Your task to perform on an android device: turn on location history Image 0: 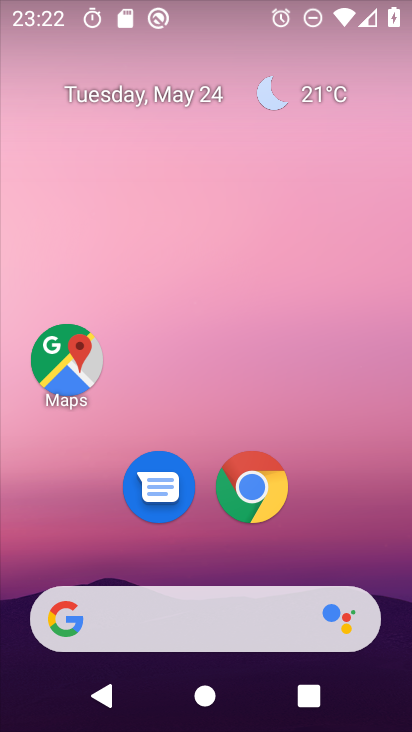
Step 0: click (69, 360)
Your task to perform on an android device: turn on location history Image 1: 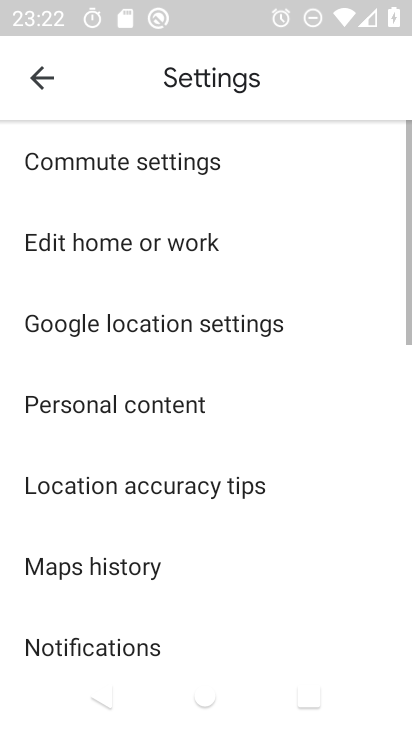
Step 1: click (30, 80)
Your task to perform on an android device: turn on location history Image 2: 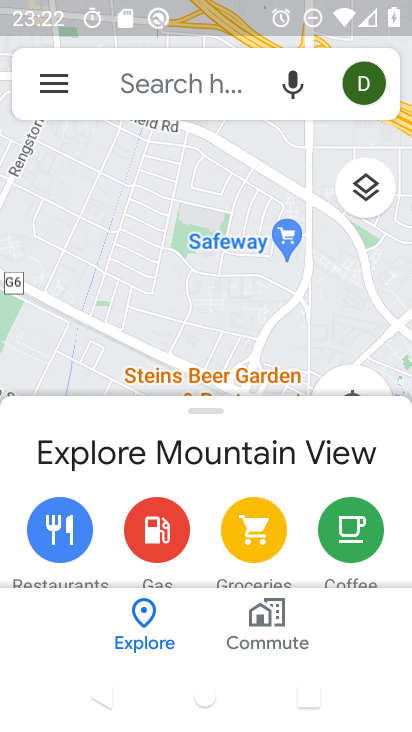
Step 2: click (55, 79)
Your task to perform on an android device: turn on location history Image 3: 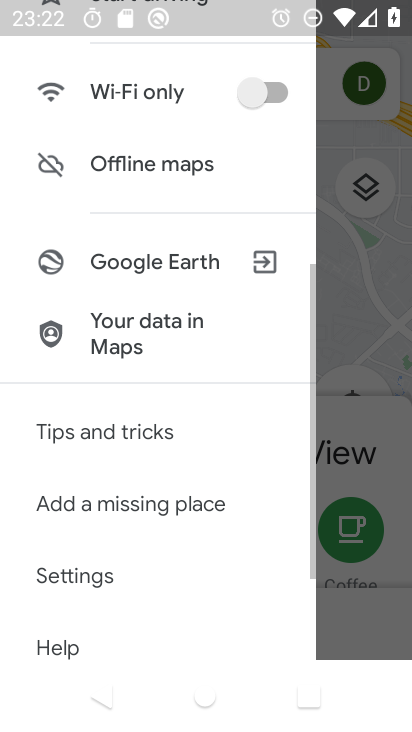
Step 3: drag from (154, 179) to (116, 678)
Your task to perform on an android device: turn on location history Image 4: 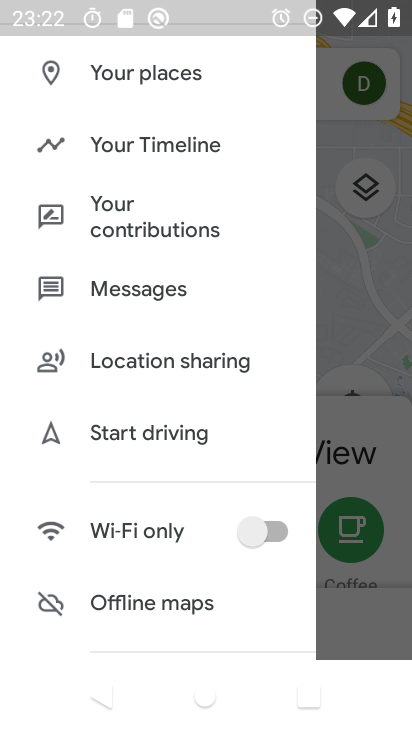
Step 4: click (146, 154)
Your task to perform on an android device: turn on location history Image 5: 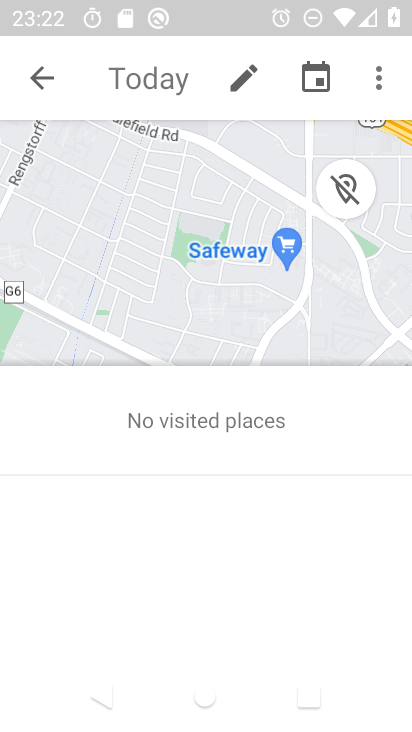
Step 5: click (376, 82)
Your task to perform on an android device: turn on location history Image 6: 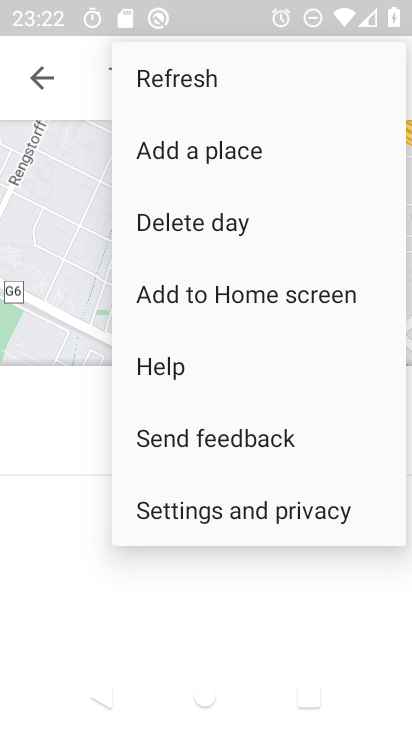
Step 6: click (242, 527)
Your task to perform on an android device: turn on location history Image 7: 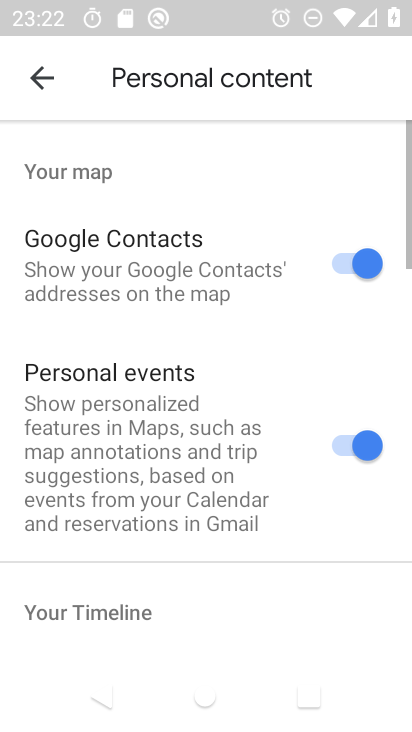
Step 7: drag from (238, 533) to (206, 0)
Your task to perform on an android device: turn on location history Image 8: 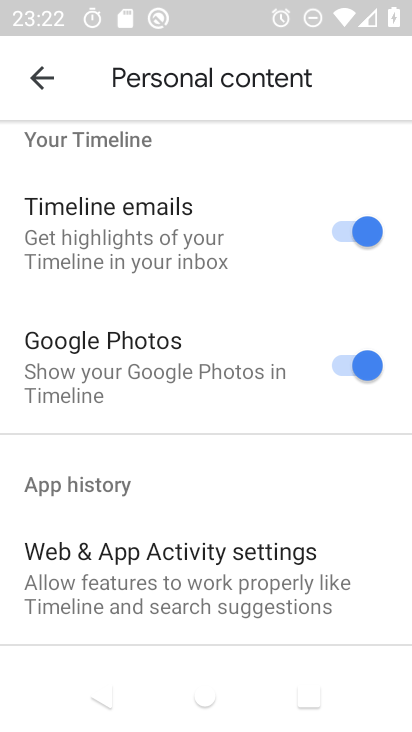
Step 8: drag from (127, 546) to (132, 78)
Your task to perform on an android device: turn on location history Image 9: 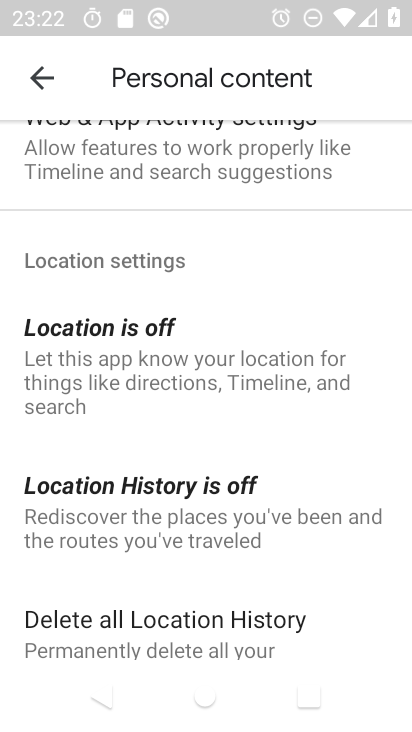
Step 9: click (126, 494)
Your task to perform on an android device: turn on location history Image 10: 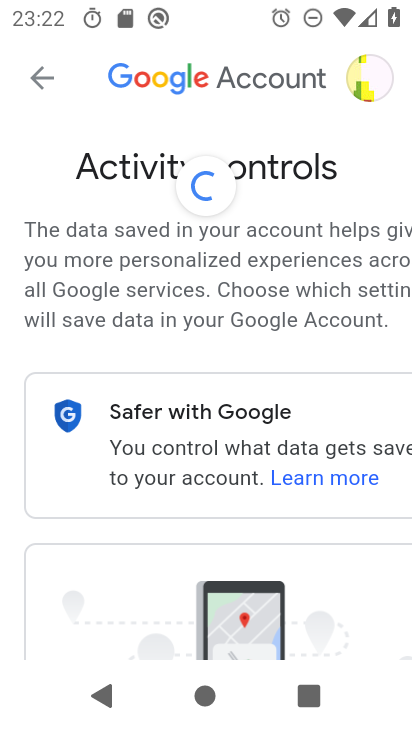
Step 10: task complete